Your task to perform on an android device: Search for "macbook pro" on ebay.com, select the first entry, and add it to the cart. Image 0: 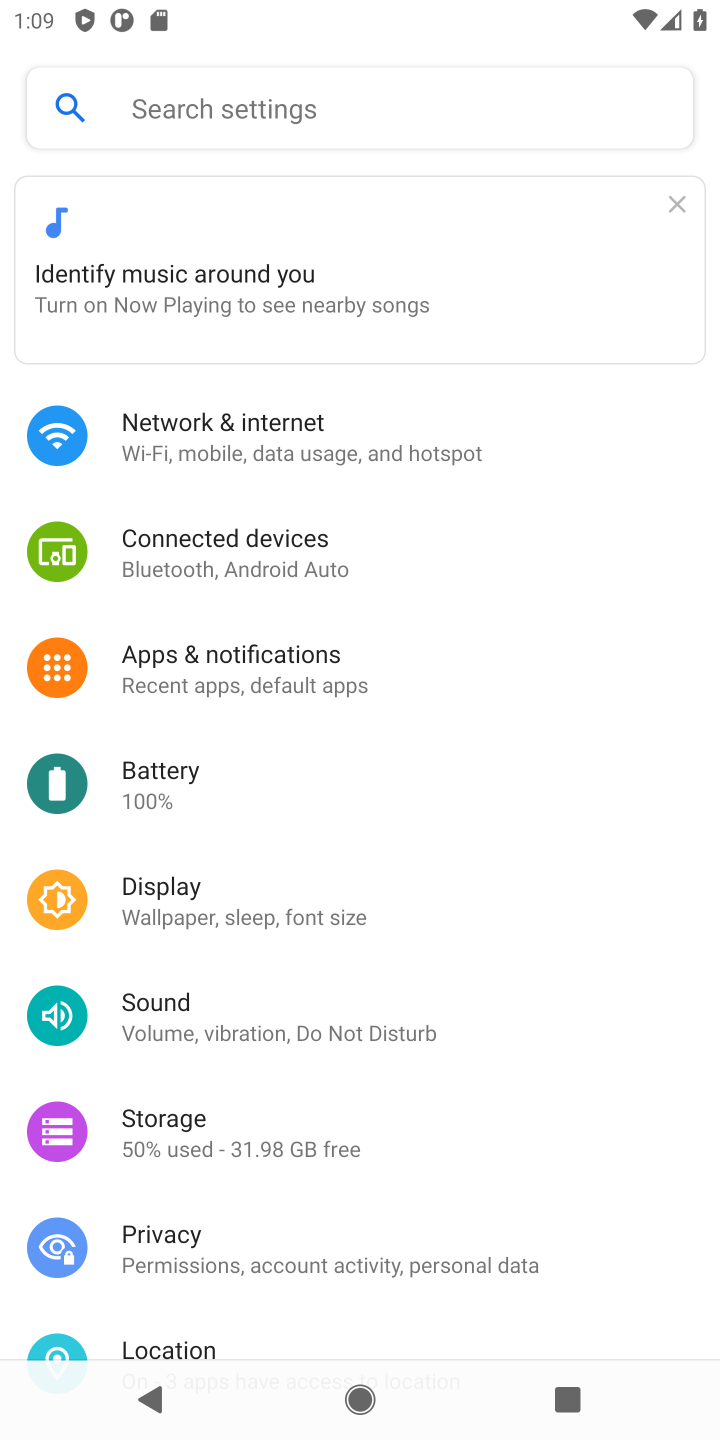
Step 0: press home button
Your task to perform on an android device: Search for "macbook pro" on ebay.com, select the first entry, and add it to the cart. Image 1: 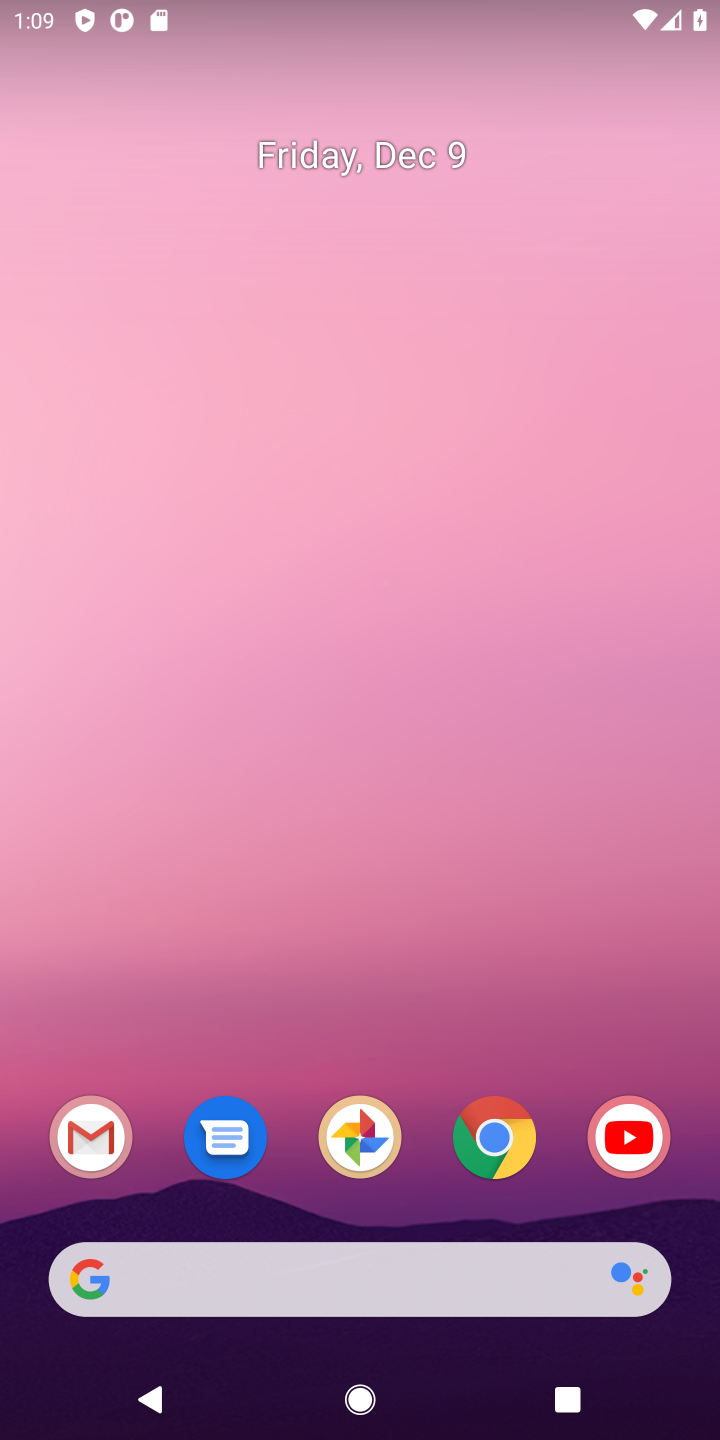
Step 1: click (497, 1138)
Your task to perform on an android device: Search for "macbook pro" on ebay.com, select the first entry, and add it to the cart. Image 2: 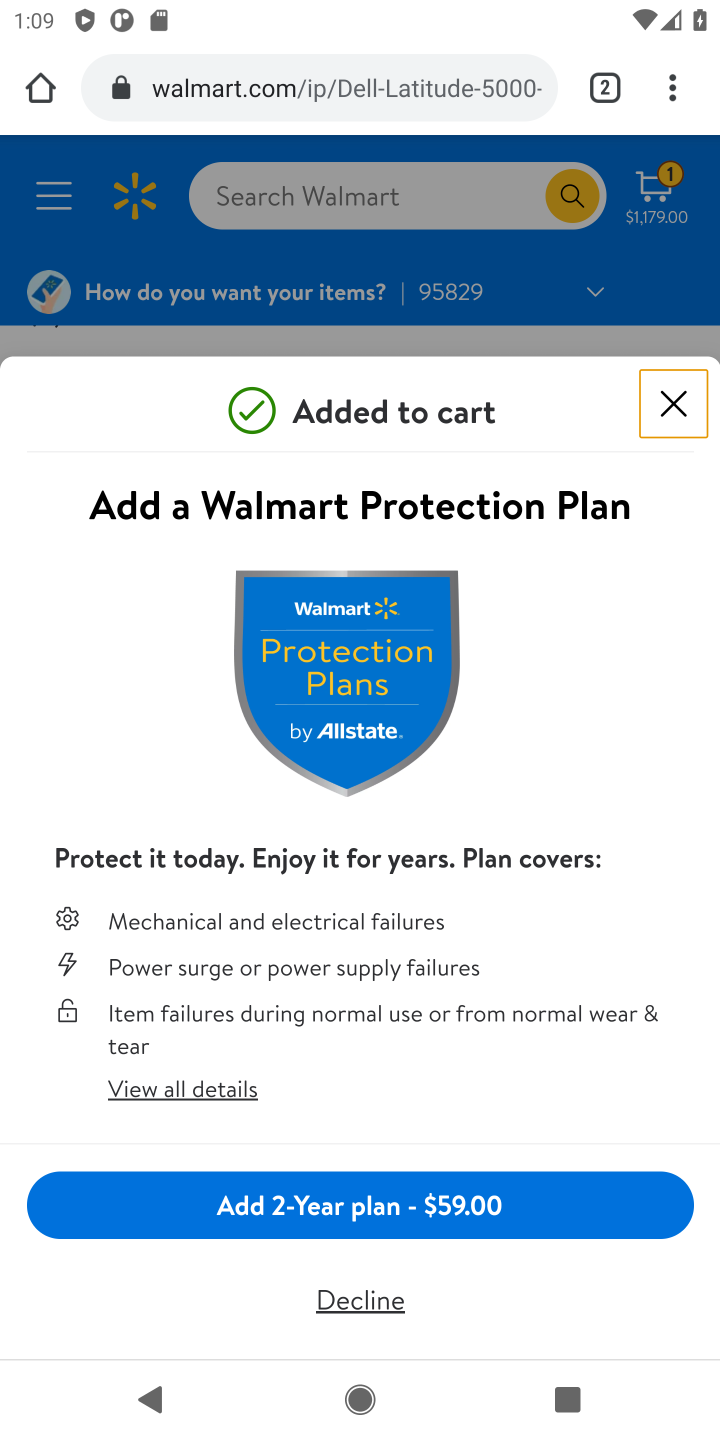
Step 2: click (338, 82)
Your task to perform on an android device: Search for "macbook pro" on ebay.com, select the first entry, and add it to the cart. Image 3: 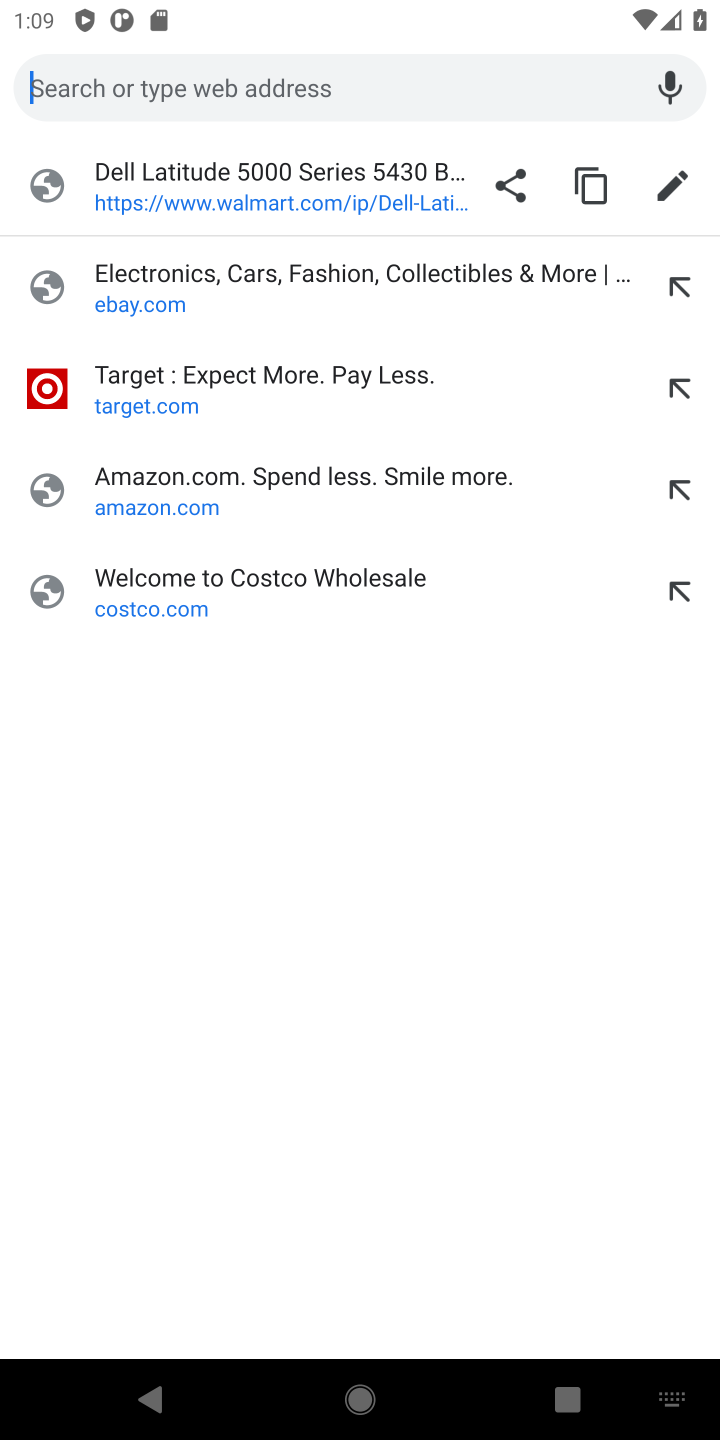
Step 3: type "EBAY"
Your task to perform on an android device: Search for "macbook pro" on ebay.com, select the first entry, and add it to the cart. Image 4: 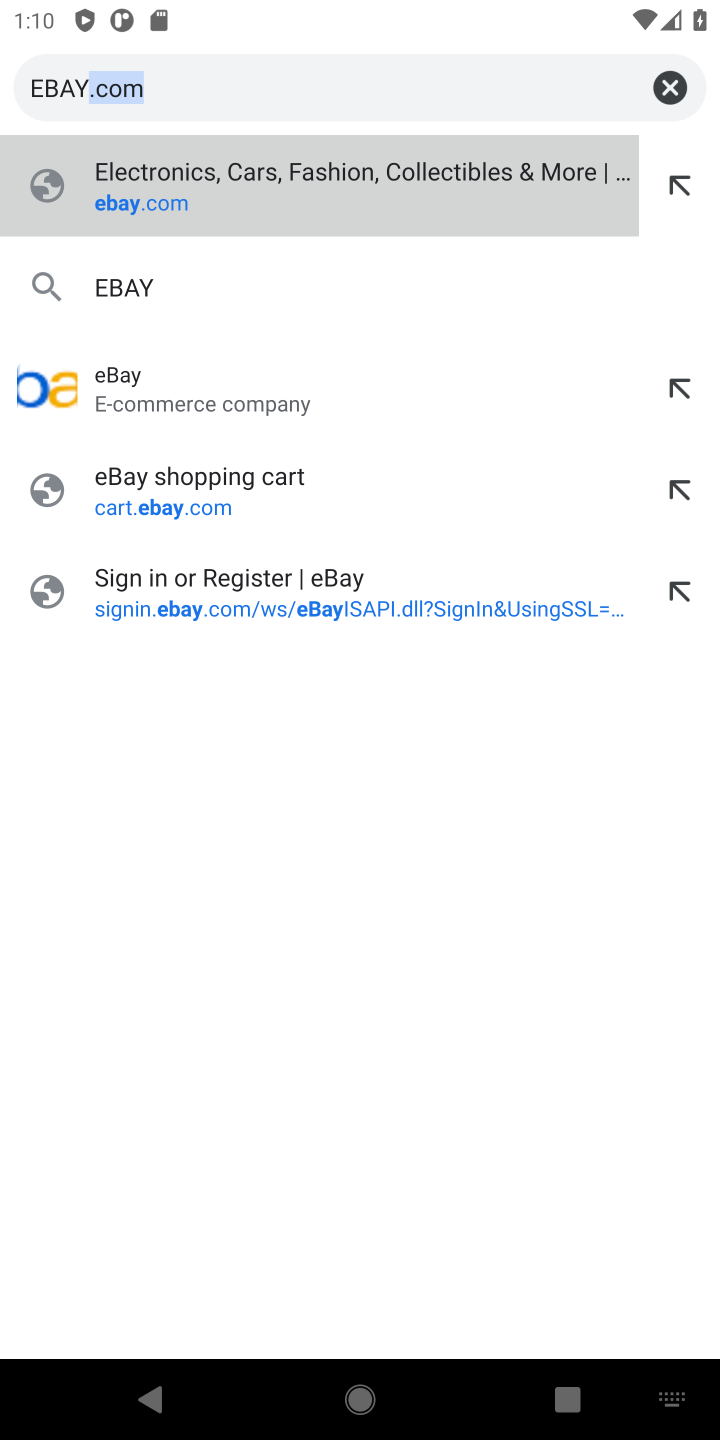
Step 4: click (438, 175)
Your task to perform on an android device: Search for "macbook pro" on ebay.com, select the first entry, and add it to the cart. Image 5: 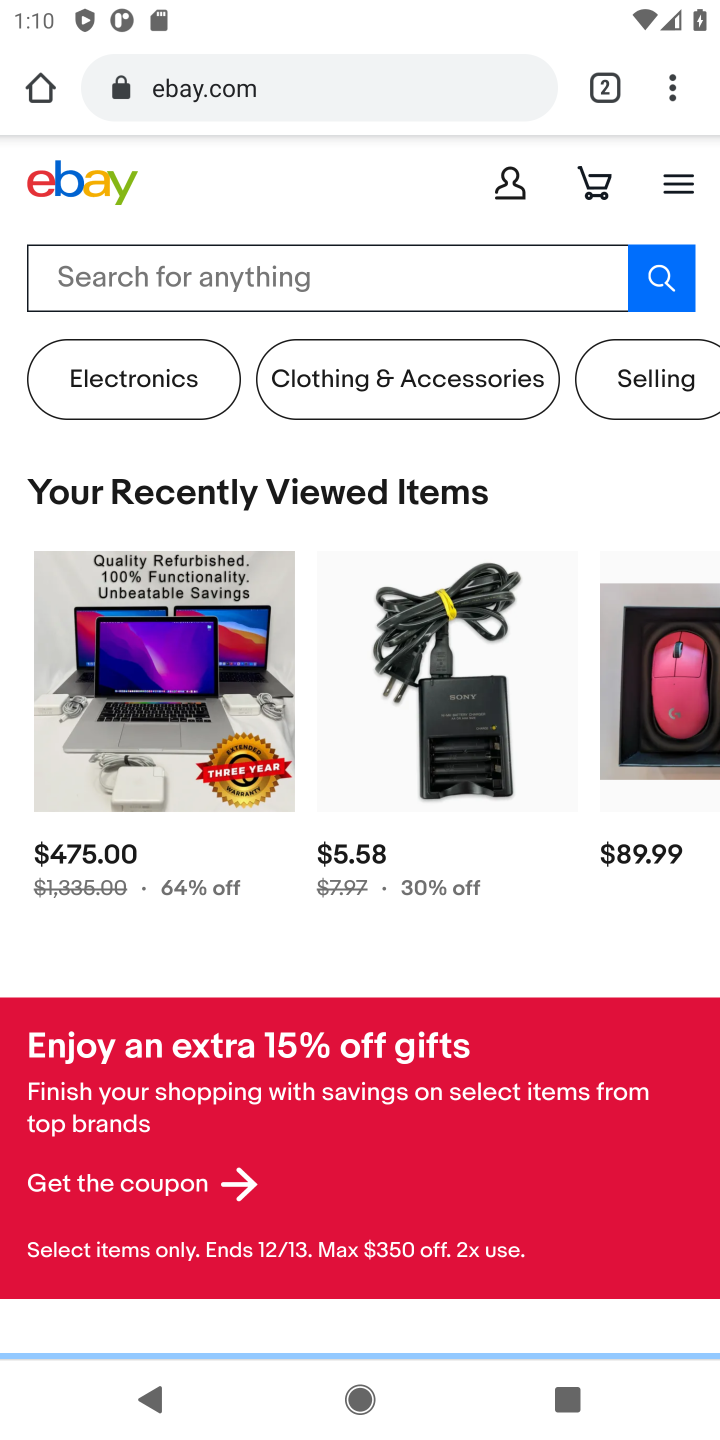
Step 5: click (480, 279)
Your task to perform on an android device: Search for "macbook pro" on ebay.com, select the first entry, and add it to the cart. Image 6: 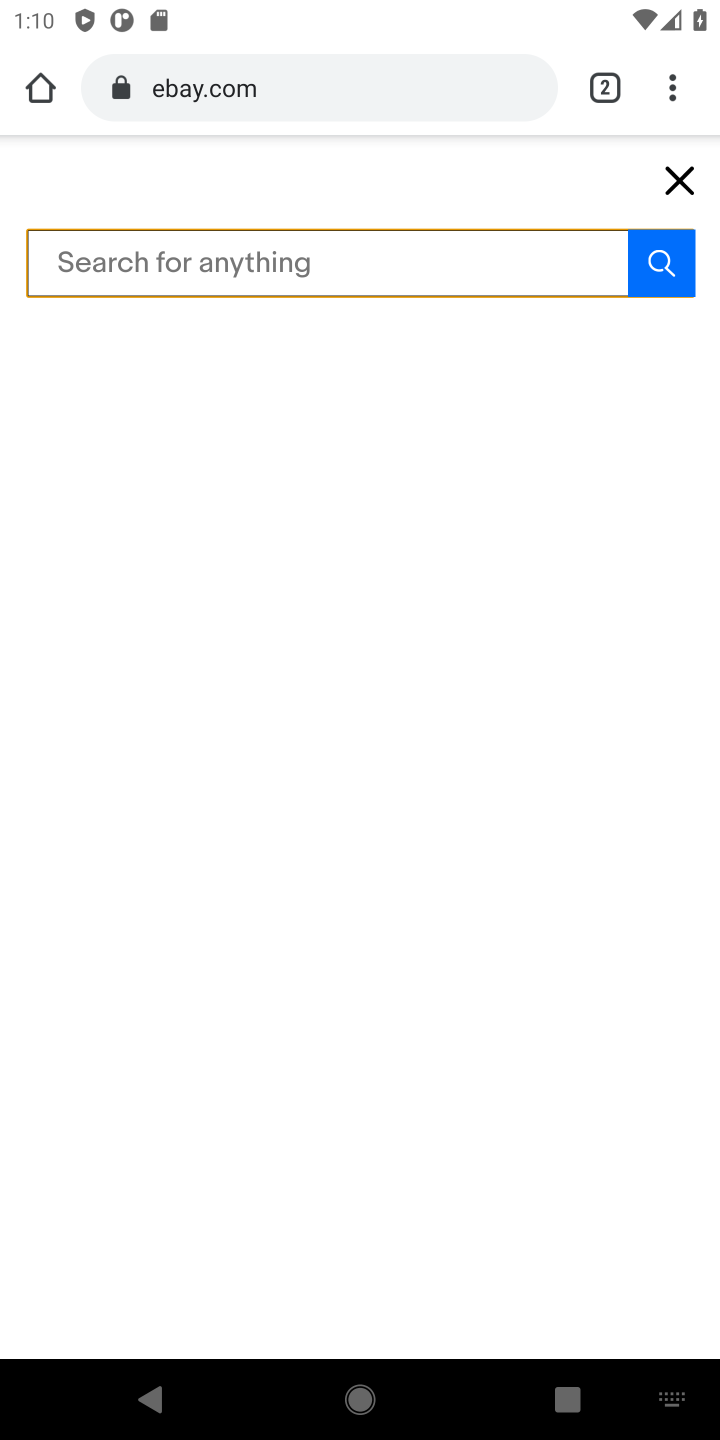
Step 6: type "MACBOOK PRO"
Your task to perform on an android device: Search for "macbook pro" on ebay.com, select the first entry, and add it to the cart. Image 7: 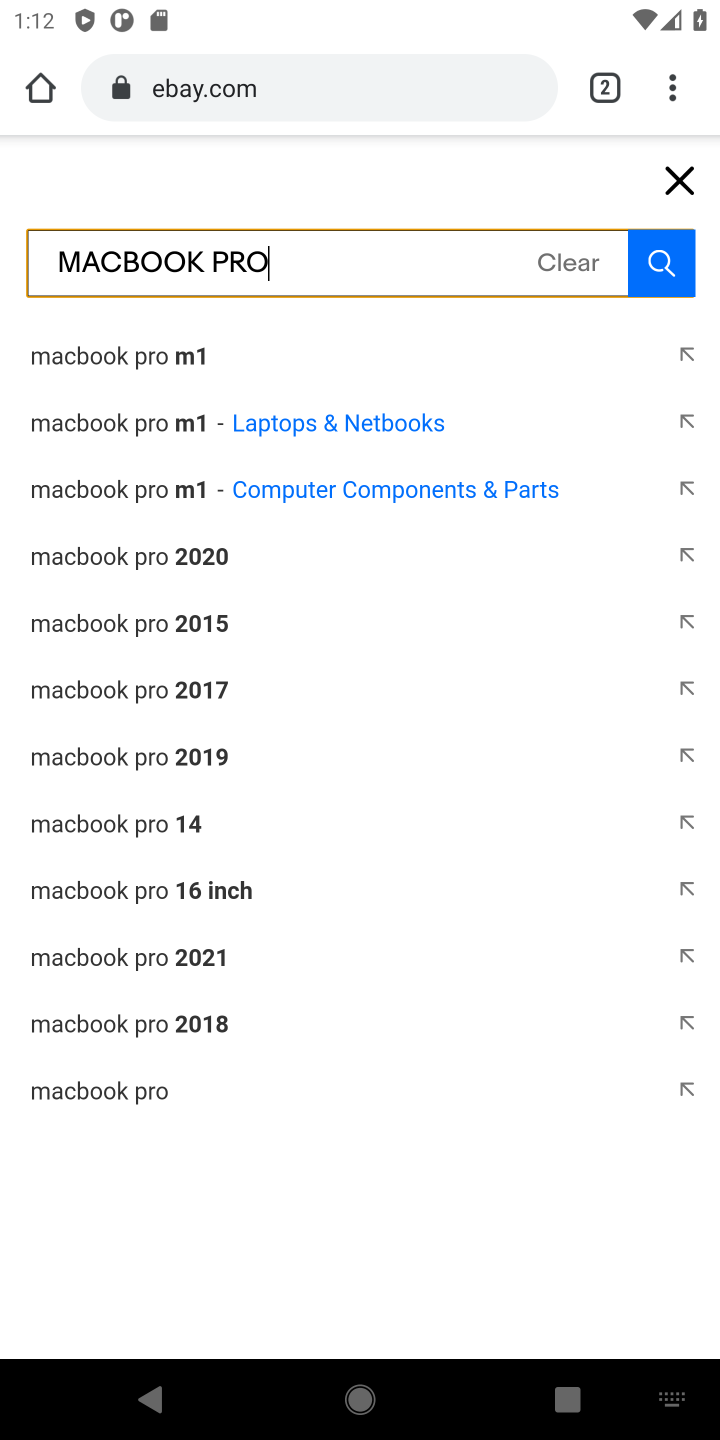
Step 7: click (217, 358)
Your task to perform on an android device: Search for "macbook pro" on ebay.com, select the first entry, and add it to the cart. Image 8: 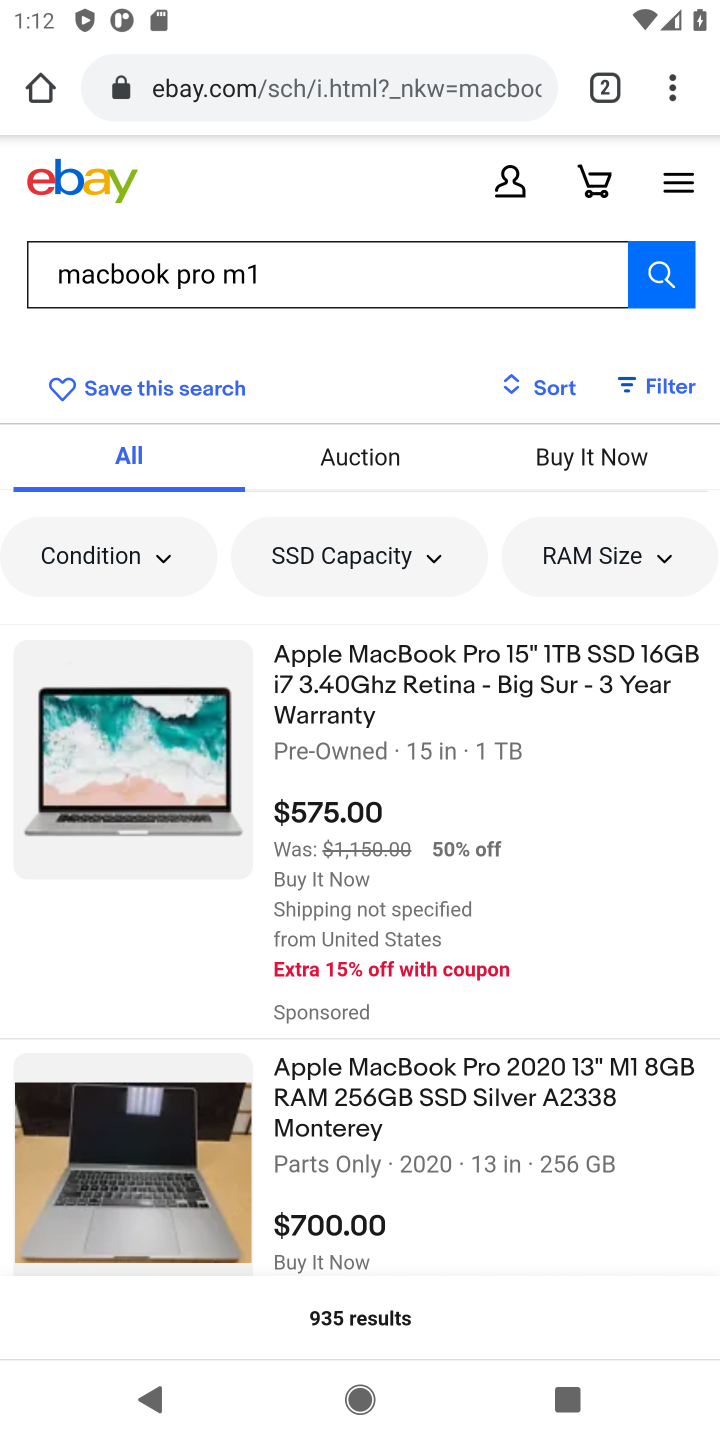
Step 8: click (505, 770)
Your task to perform on an android device: Search for "macbook pro" on ebay.com, select the first entry, and add it to the cart. Image 9: 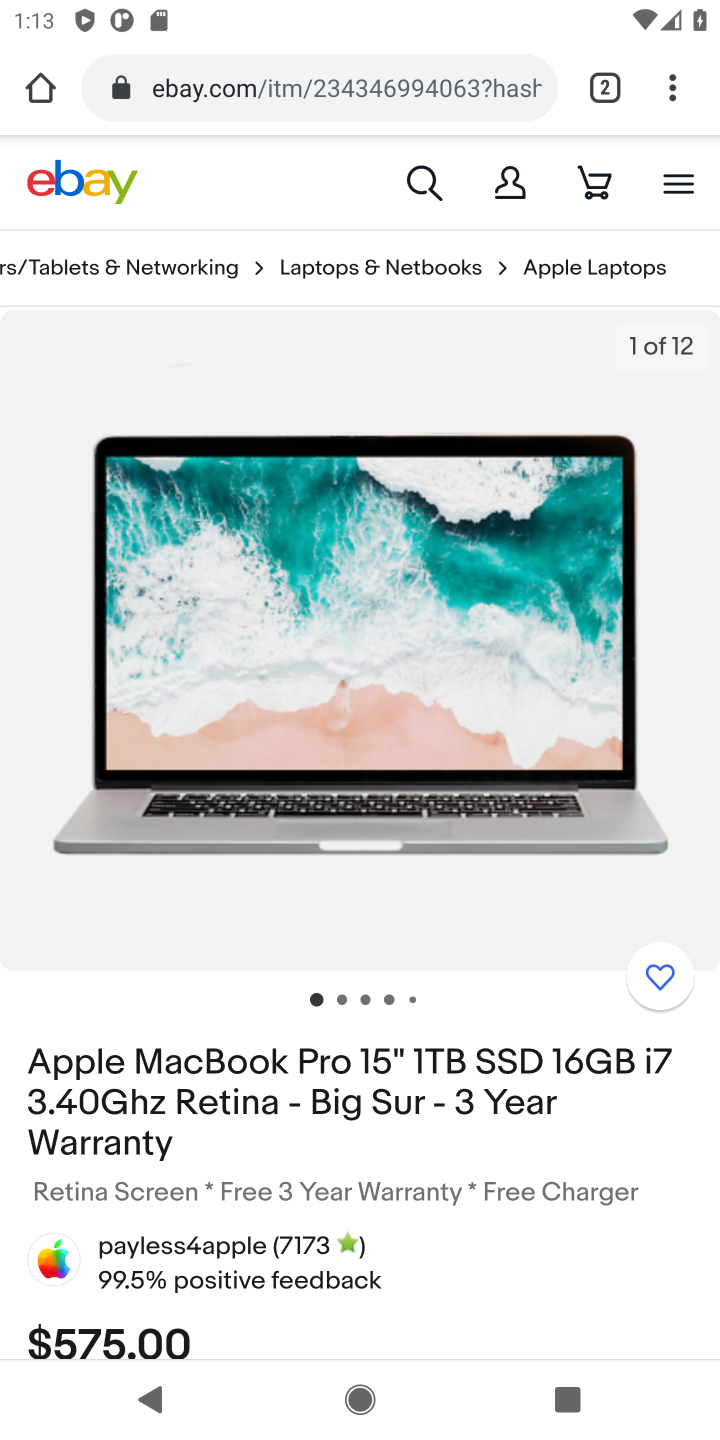
Step 9: drag from (509, 1278) to (525, 686)
Your task to perform on an android device: Search for "macbook pro" on ebay.com, select the first entry, and add it to the cart. Image 10: 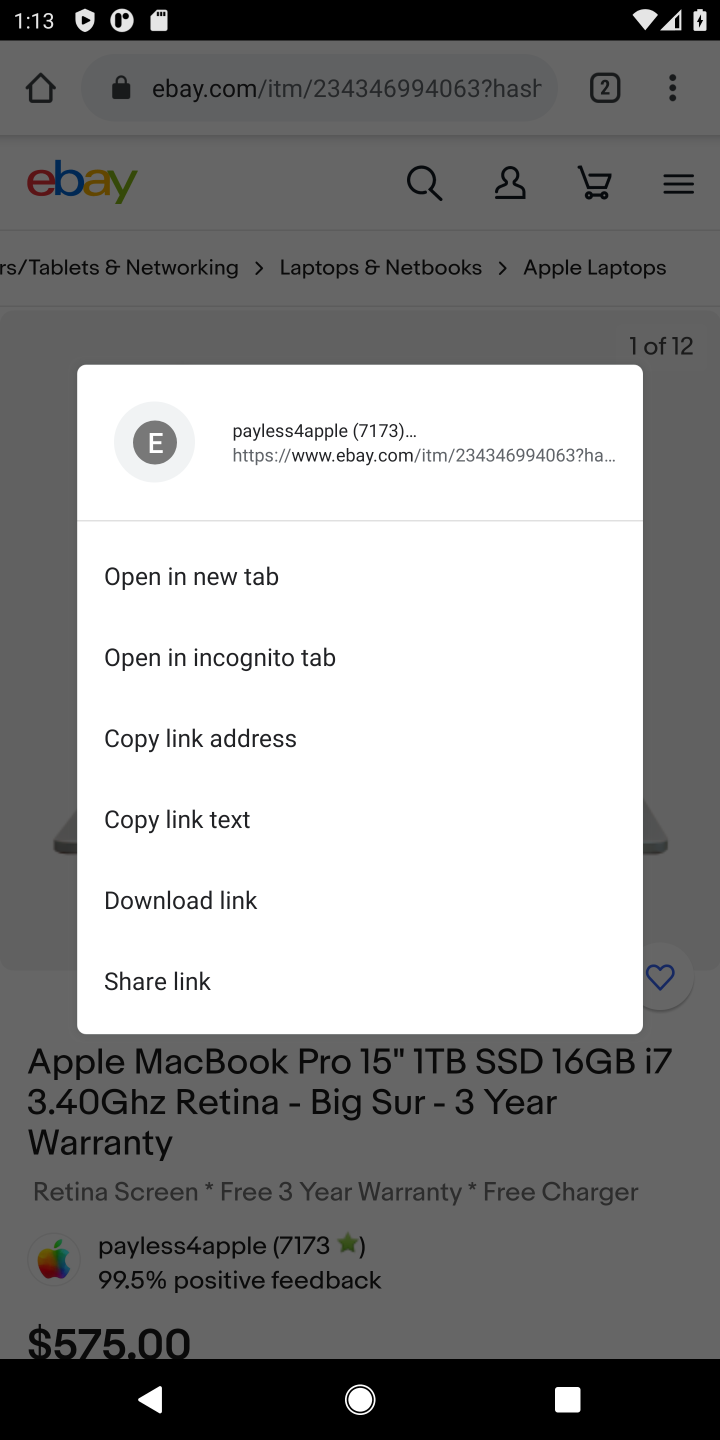
Step 10: click (524, 1192)
Your task to perform on an android device: Search for "macbook pro" on ebay.com, select the first entry, and add it to the cart. Image 11: 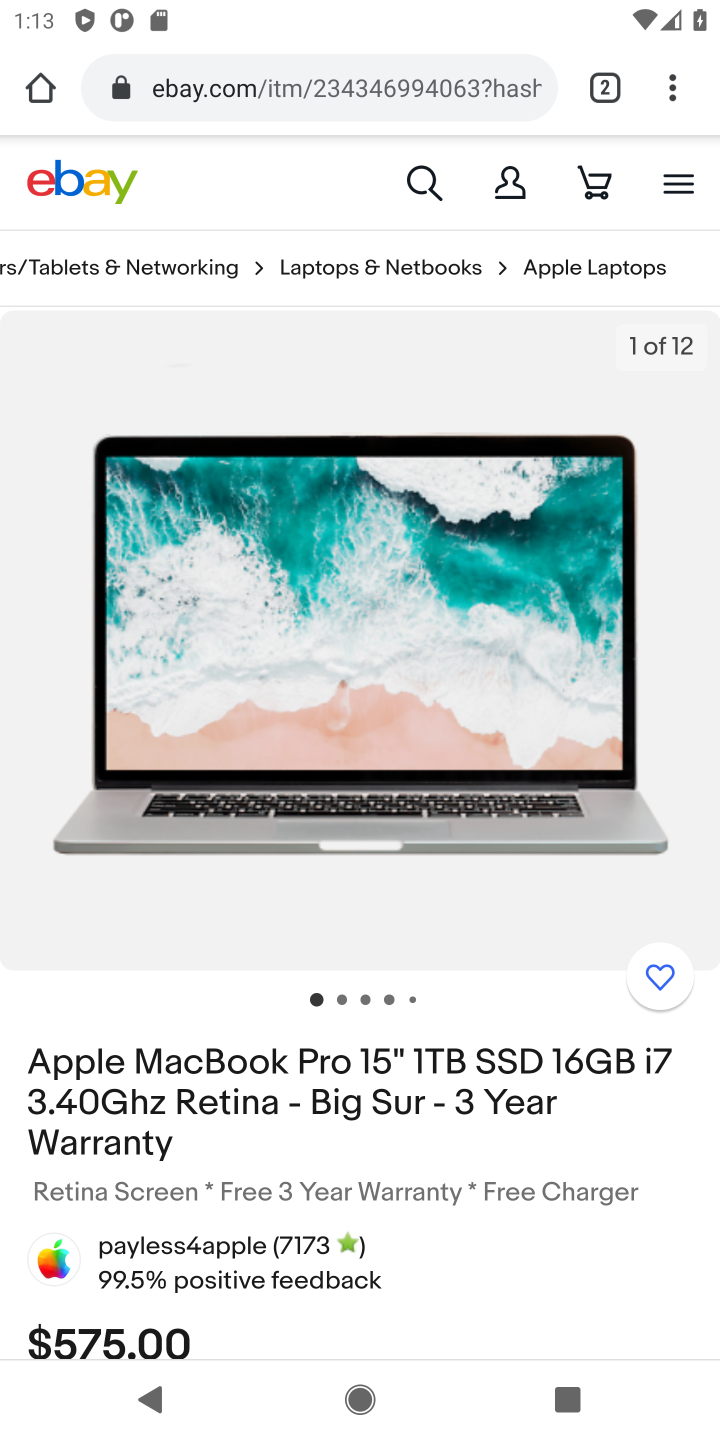
Step 11: drag from (524, 1228) to (597, 124)
Your task to perform on an android device: Search for "macbook pro" on ebay.com, select the first entry, and add it to the cart. Image 12: 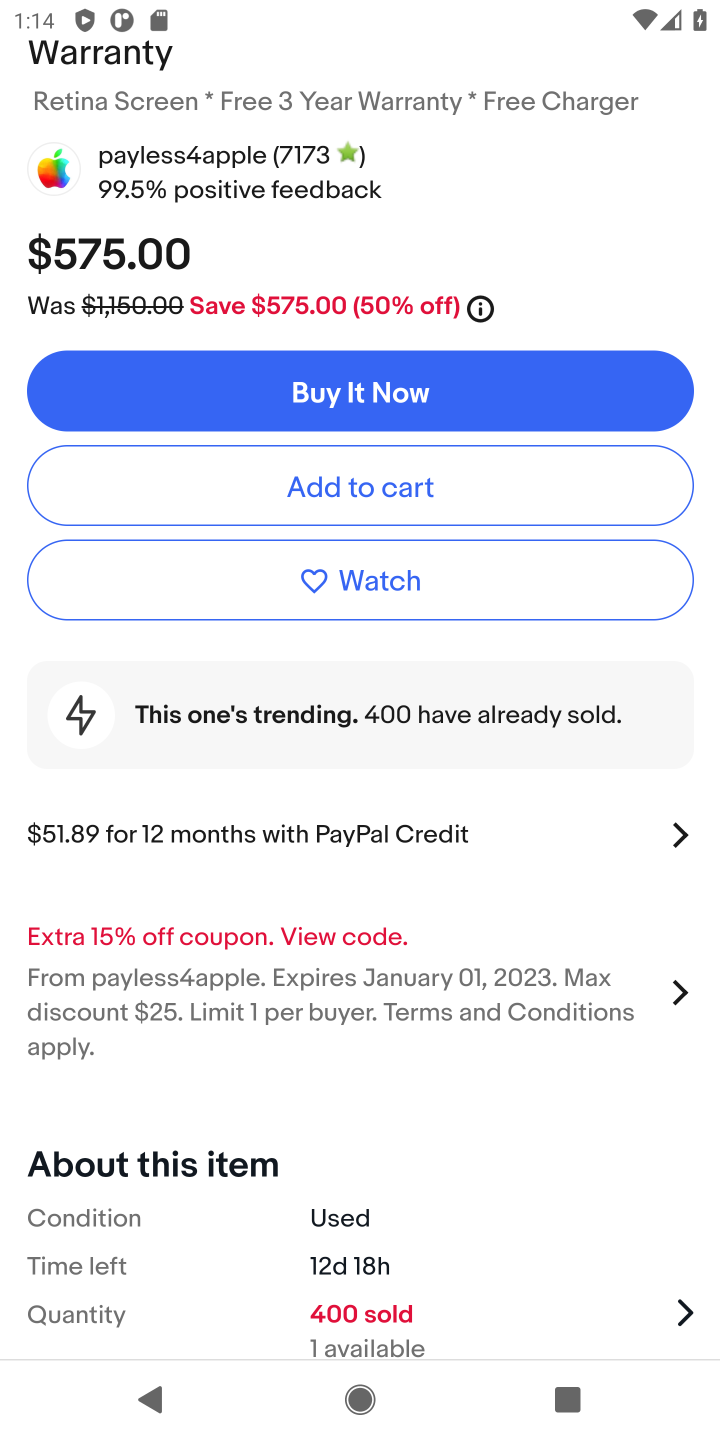
Step 12: click (404, 490)
Your task to perform on an android device: Search for "macbook pro" on ebay.com, select the first entry, and add it to the cart. Image 13: 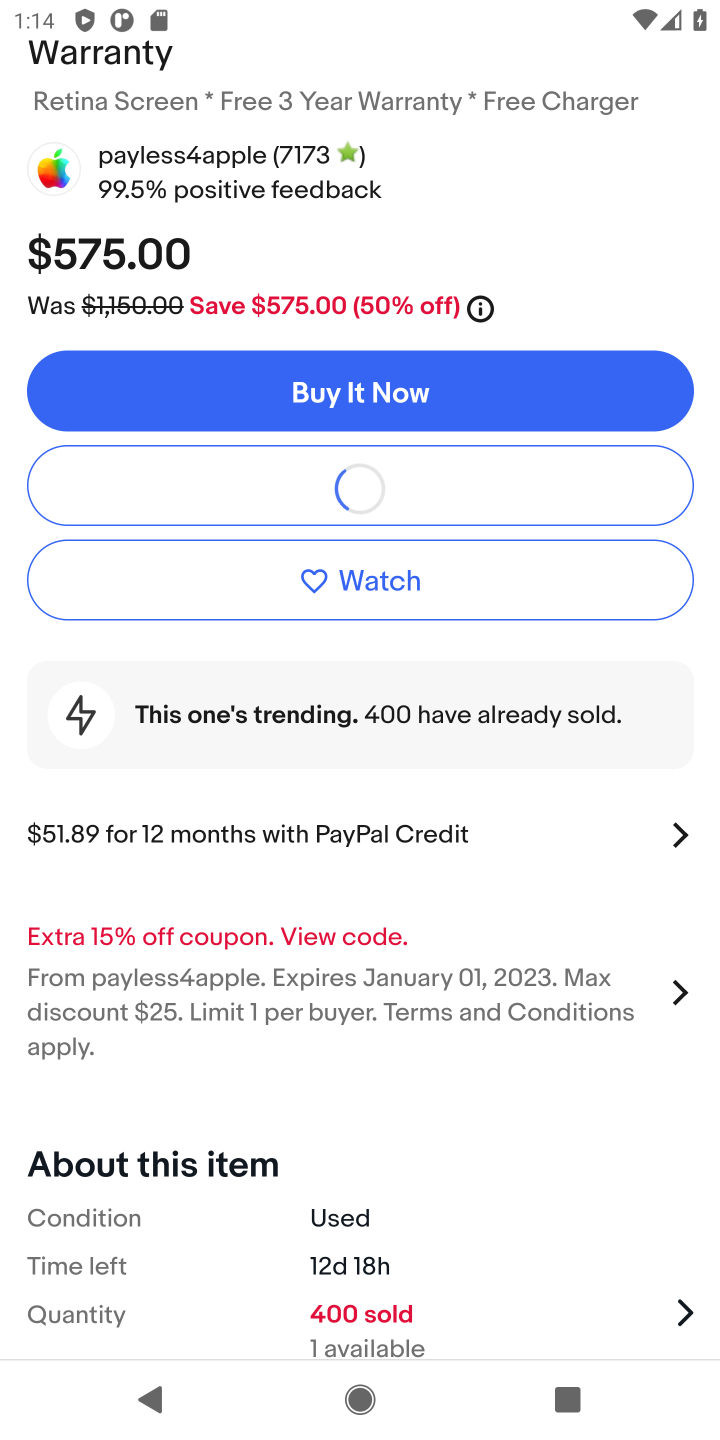
Step 13: task complete